Your task to perform on an android device: Go to Amazon Image 0: 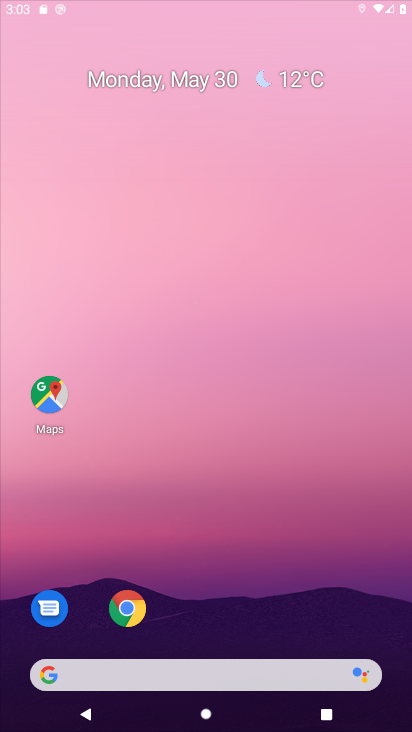
Step 0: drag from (268, 153) to (237, 2)
Your task to perform on an android device: Go to Amazon Image 1: 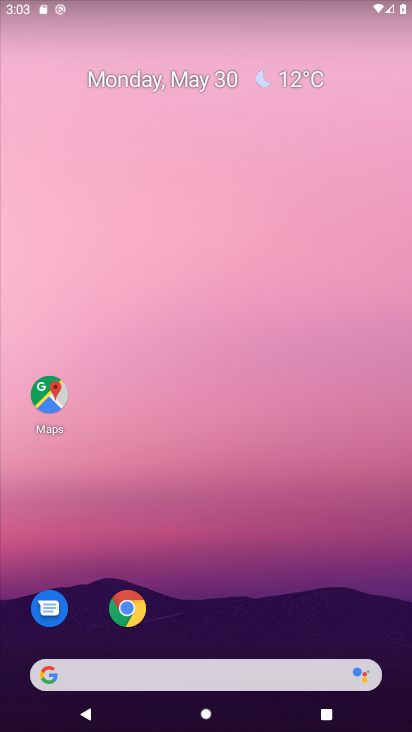
Step 1: click (127, 603)
Your task to perform on an android device: Go to Amazon Image 2: 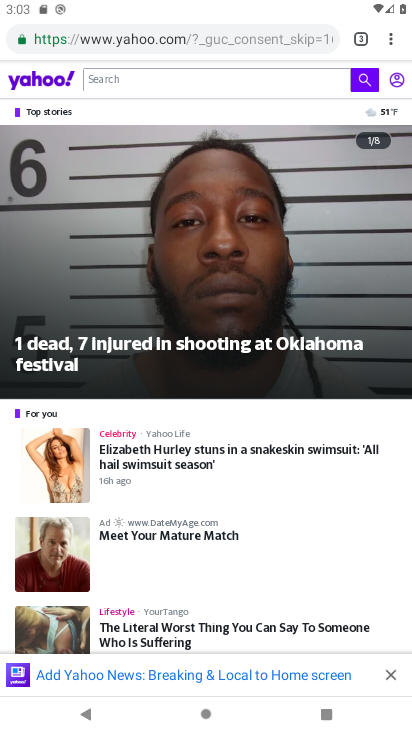
Step 2: click (362, 25)
Your task to perform on an android device: Go to Amazon Image 3: 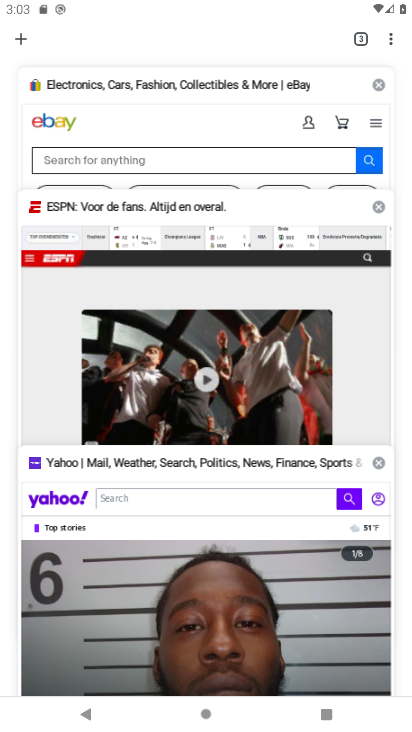
Step 3: click (23, 31)
Your task to perform on an android device: Go to Amazon Image 4: 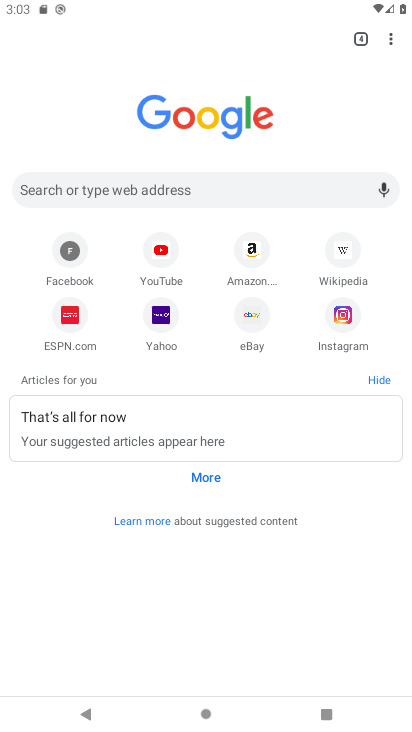
Step 4: click (254, 251)
Your task to perform on an android device: Go to Amazon Image 5: 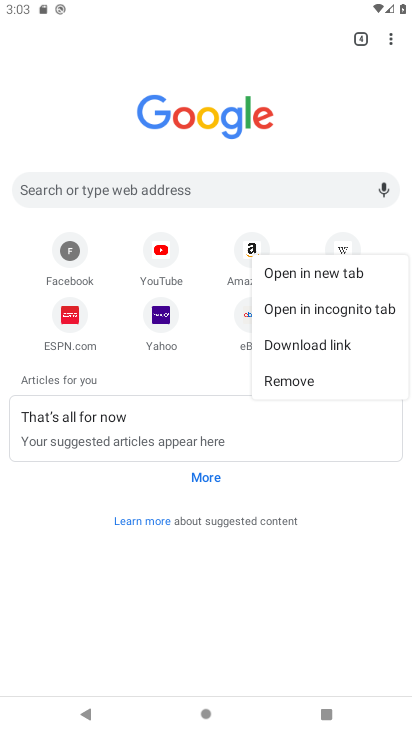
Step 5: click (259, 251)
Your task to perform on an android device: Go to Amazon Image 6: 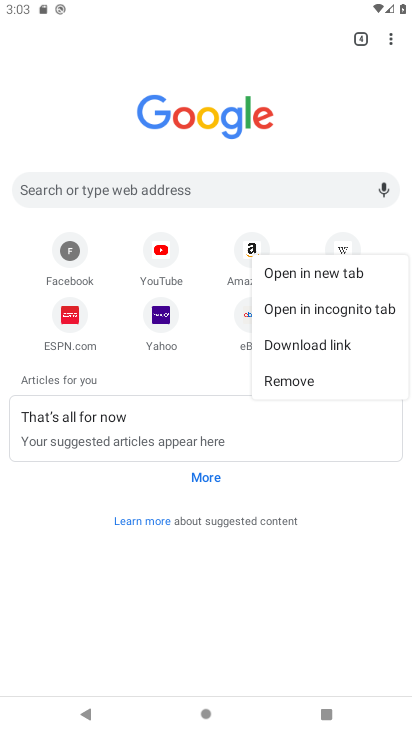
Step 6: click (253, 240)
Your task to perform on an android device: Go to Amazon Image 7: 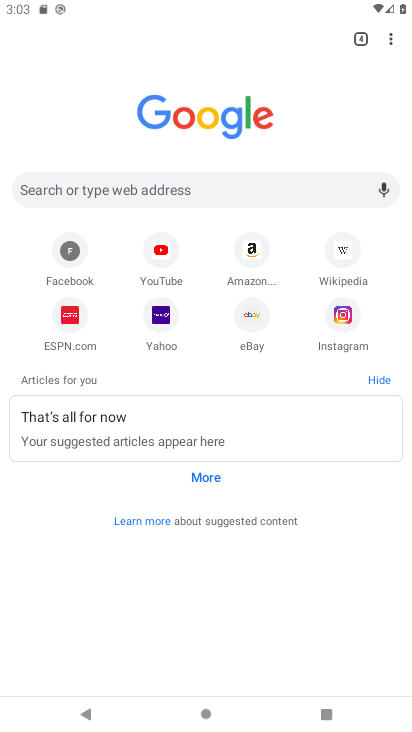
Step 7: click (249, 252)
Your task to perform on an android device: Go to Amazon Image 8: 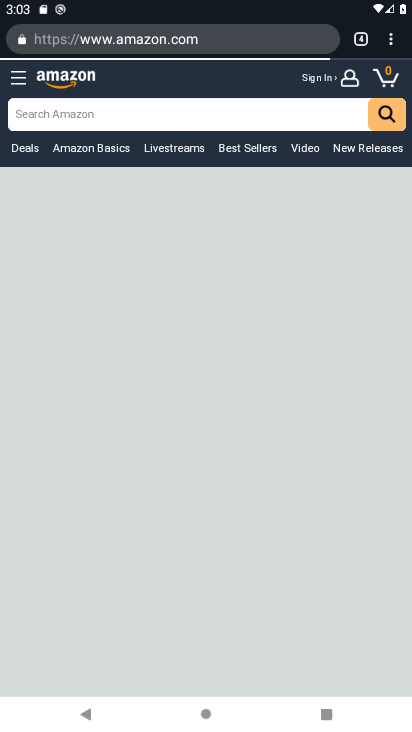
Step 8: task complete